Your task to perform on an android device: star an email in the gmail app Image 0: 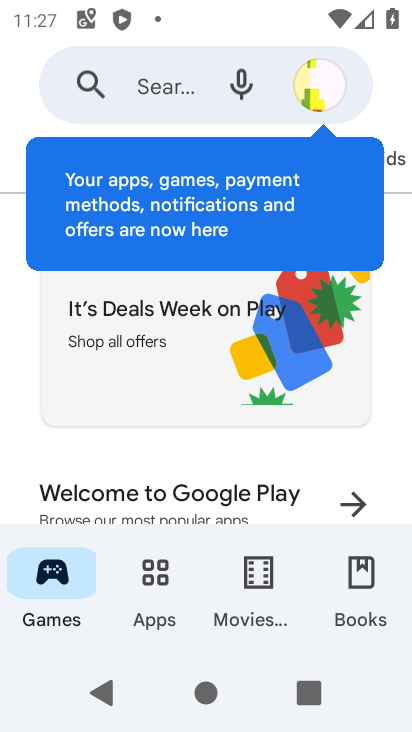
Step 0: press home button
Your task to perform on an android device: star an email in the gmail app Image 1: 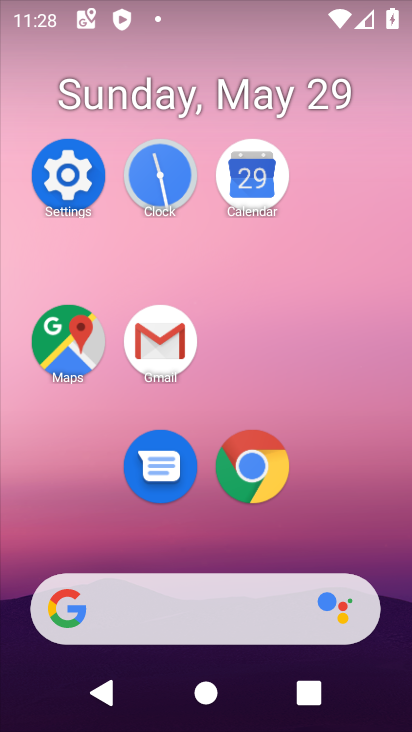
Step 1: click (170, 354)
Your task to perform on an android device: star an email in the gmail app Image 2: 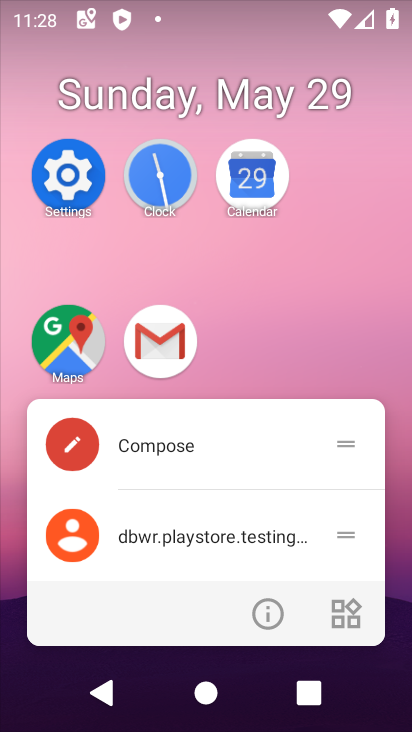
Step 2: click (159, 341)
Your task to perform on an android device: star an email in the gmail app Image 3: 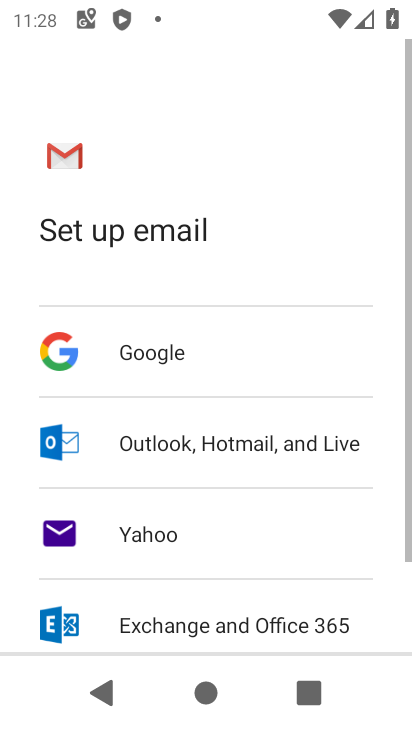
Step 3: press back button
Your task to perform on an android device: star an email in the gmail app Image 4: 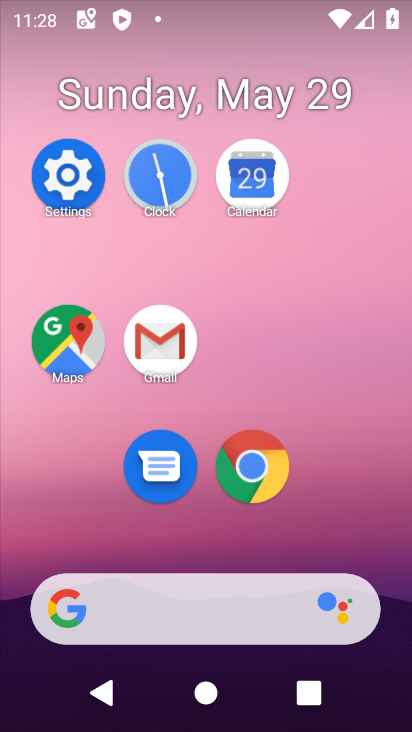
Step 4: click (149, 339)
Your task to perform on an android device: star an email in the gmail app Image 5: 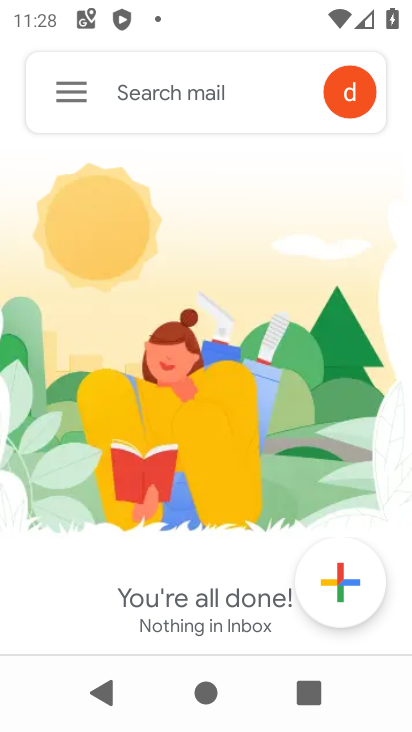
Step 5: click (67, 117)
Your task to perform on an android device: star an email in the gmail app Image 6: 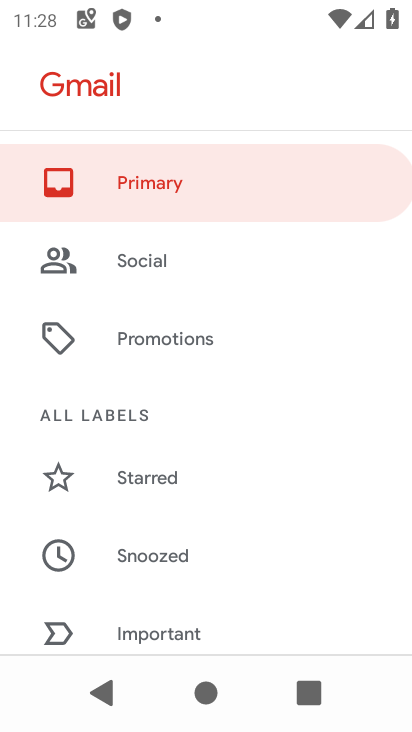
Step 6: drag from (197, 556) to (275, 188)
Your task to perform on an android device: star an email in the gmail app Image 7: 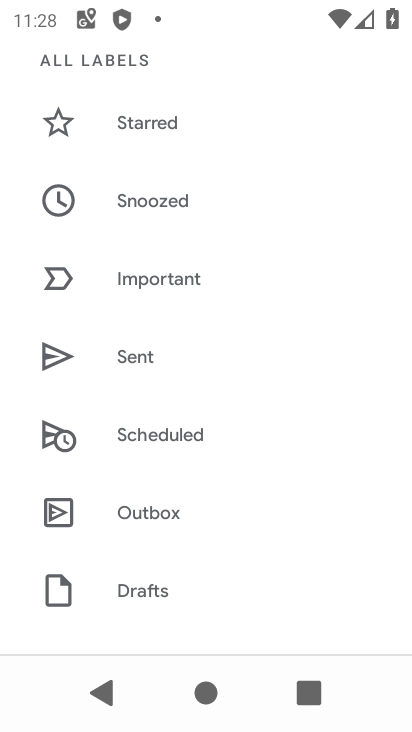
Step 7: drag from (186, 575) to (276, 183)
Your task to perform on an android device: star an email in the gmail app Image 8: 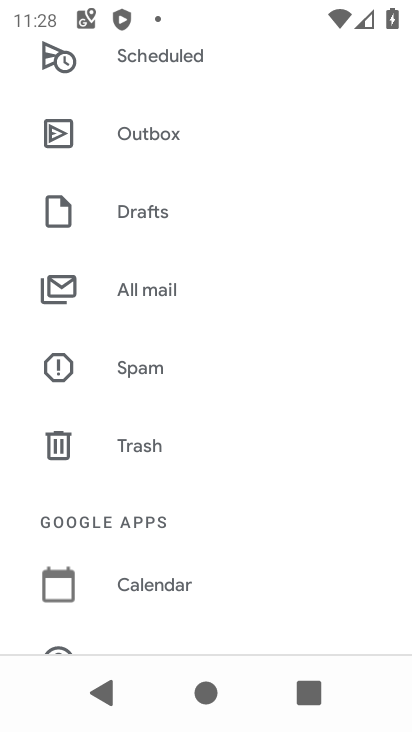
Step 8: click (200, 305)
Your task to perform on an android device: star an email in the gmail app Image 9: 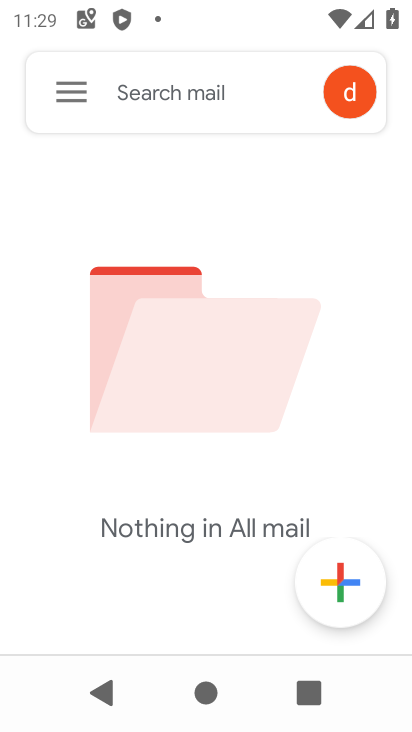
Step 9: task complete